Your task to perform on an android device: Do I have any events tomorrow? Image 0: 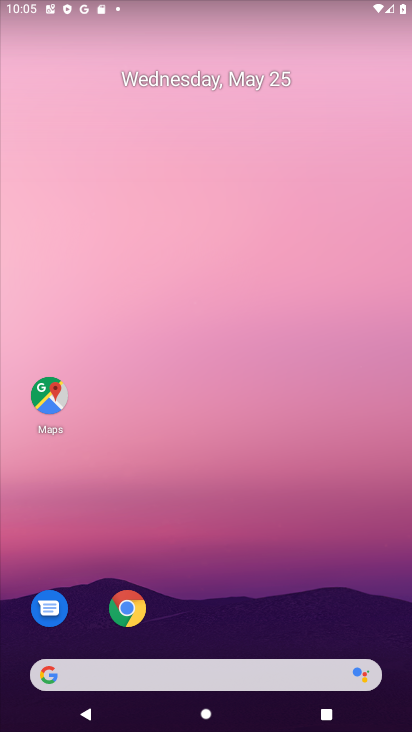
Step 0: drag from (252, 656) to (264, 16)
Your task to perform on an android device: Do I have any events tomorrow? Image 1: 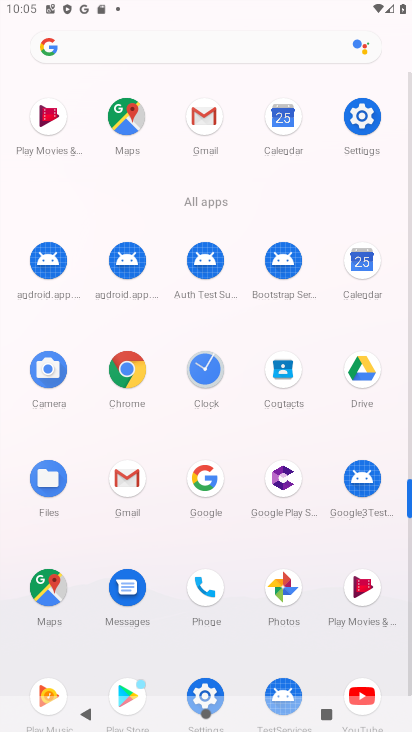
Step 1: click (275, 113)
Your task to perform on an android device: Do I have any events tomorrow? Image 2: 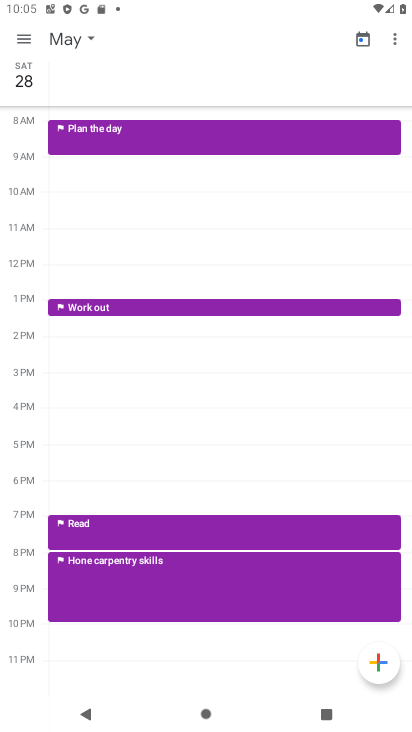
Step 2: click (95, 38)
Your task to perform on an android device: Do I have any events tomorrow? Image 3: 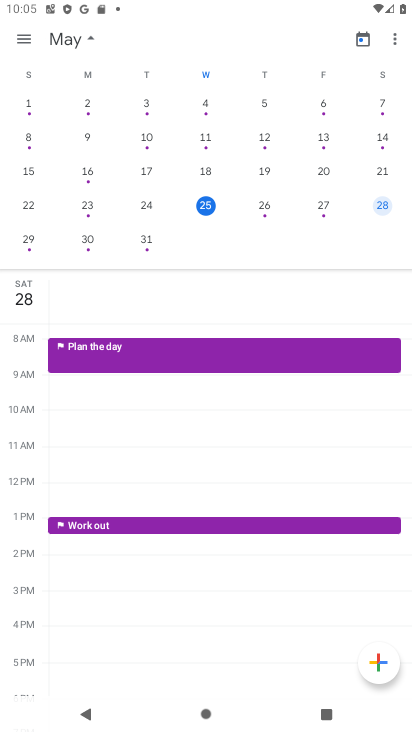
Step 3: click (262, 210)
Your task to perform on an android device: Do I have any events tomorrow? Image 4: 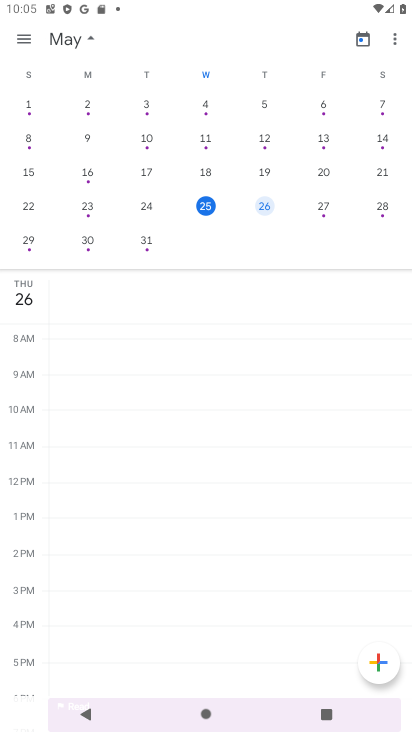
Step 4: task complete